Your task to perform on an android device: check android version Image 0: 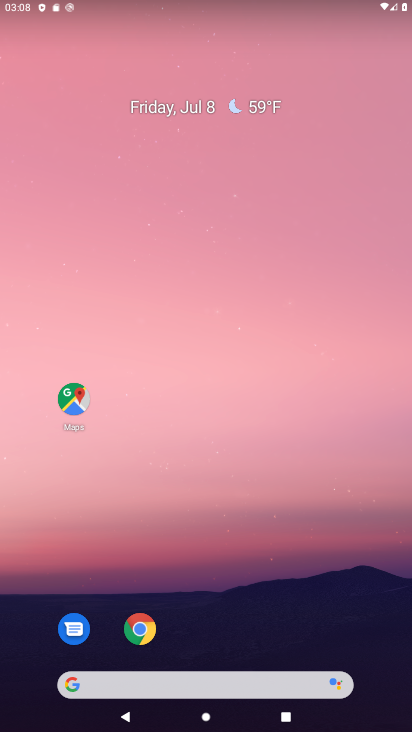
Step 0: drag from (219, 651) to (264, 125)
Your task to perform on an android device: check android version Image 1: 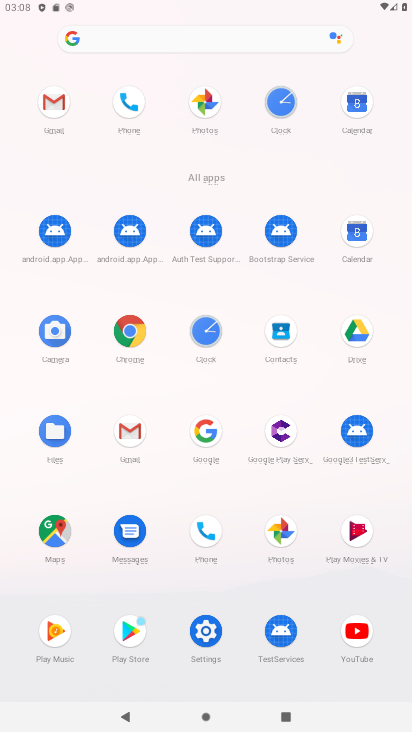
Step 1: click (202, 624)
Your task to perform on an android device: check android version Image 2: 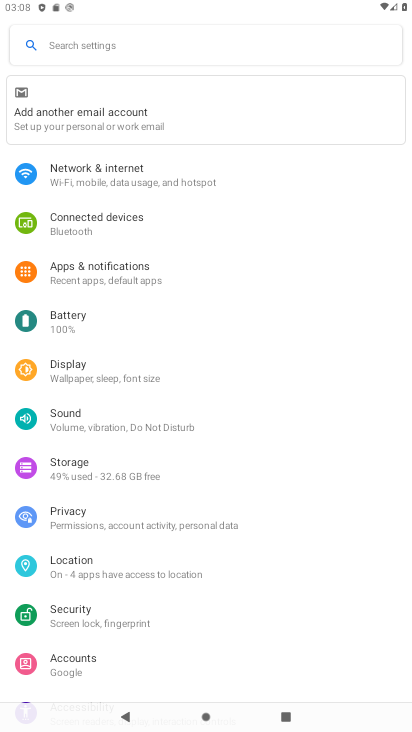
Step 2: drag from (134, 646) to (188, 158)
Your task to perform on an android device: check android version Image 3: 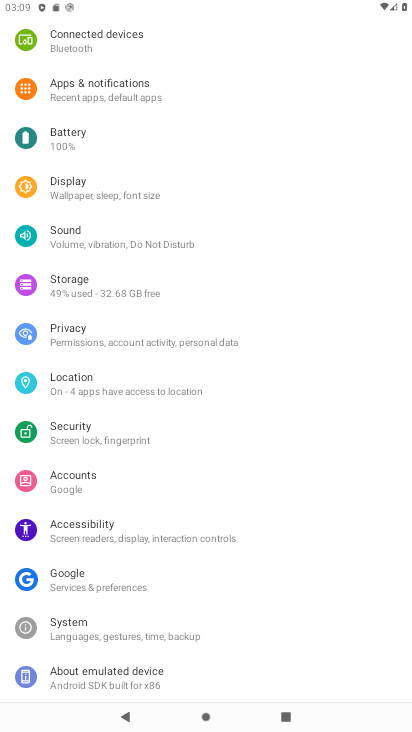
Step 3: click (150, 677)
Your task to perform on an android device: check android version Image 4: 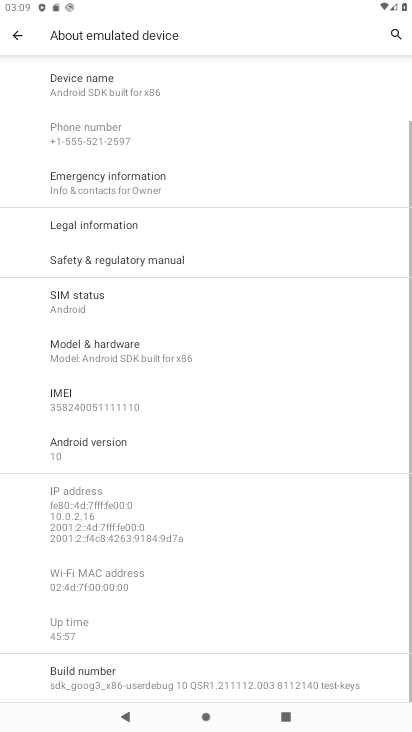
Step 4: click (101, 458)
Your task to perform on an android device: check android version Image 5: 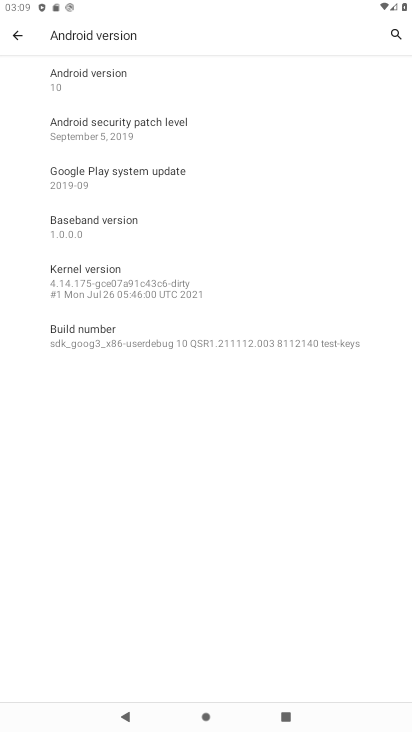
Step 5: task complete